Your task to perform on an android device: Go to accessibility settings Image 0: 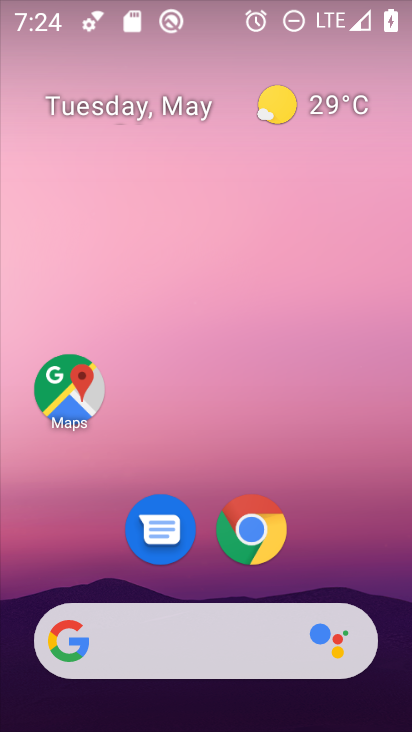
Step 0: drag from (397, 616) to (188, 39)
Your task to perform on an android device: Go to accessibility settings Image 1: 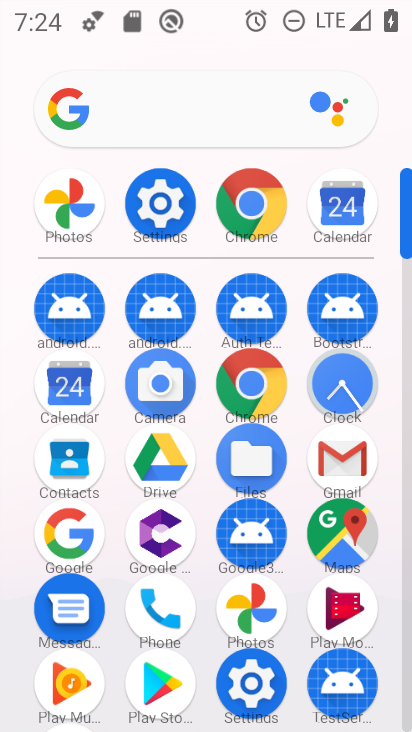
Step 1: click (249, 690)
Your task to perform on an android device: Go to accessibility settings Image 2: 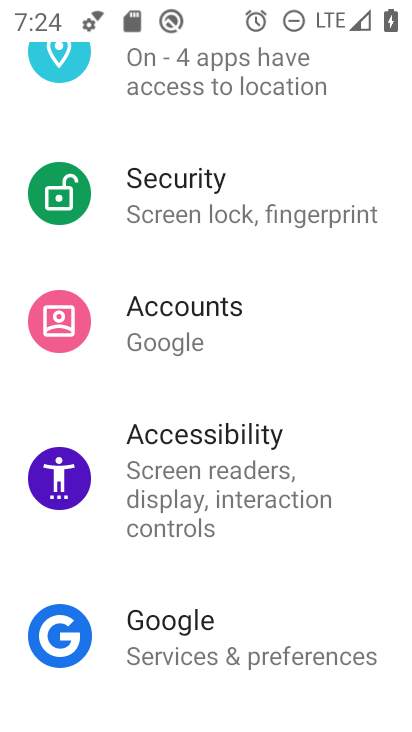
Step 2: drag from (187, 635) to (211, 369)
Your task to perform on an android device: Go to accessibility settings Image 3: 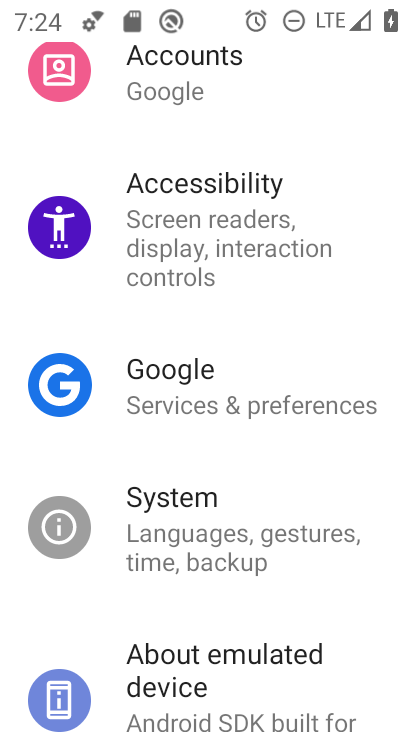
Step 3: click (212, 225)
Your task to perform on an android device: Go to accessibility settings Image 4: 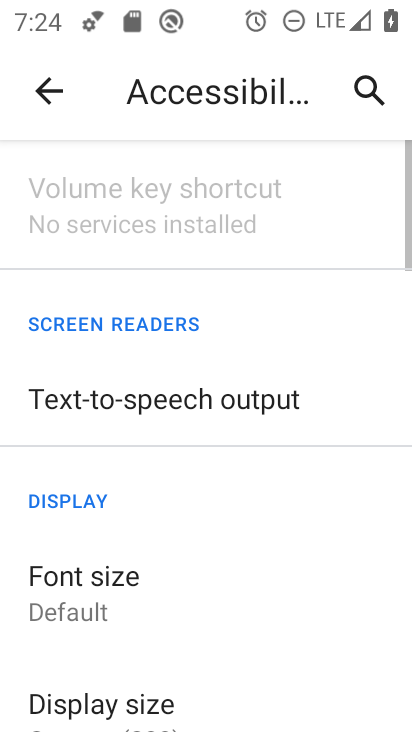
Step 4: task complete